Your task to perform on an android device: change the clock display to analog Image 0: 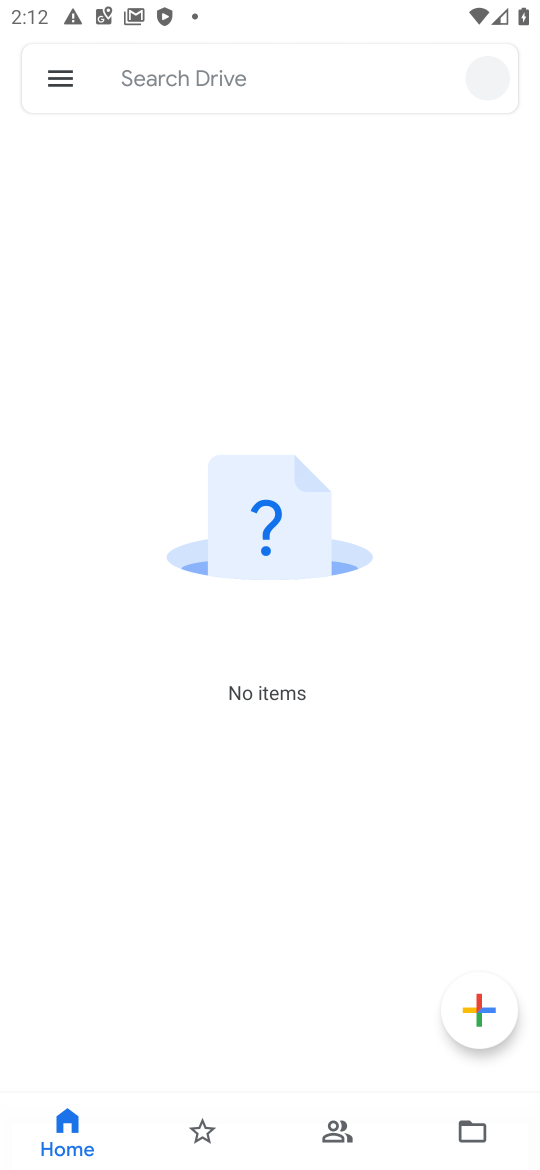
Step 0: press back button
Your task to perform on an android device: change the clock display to analog Image 1: 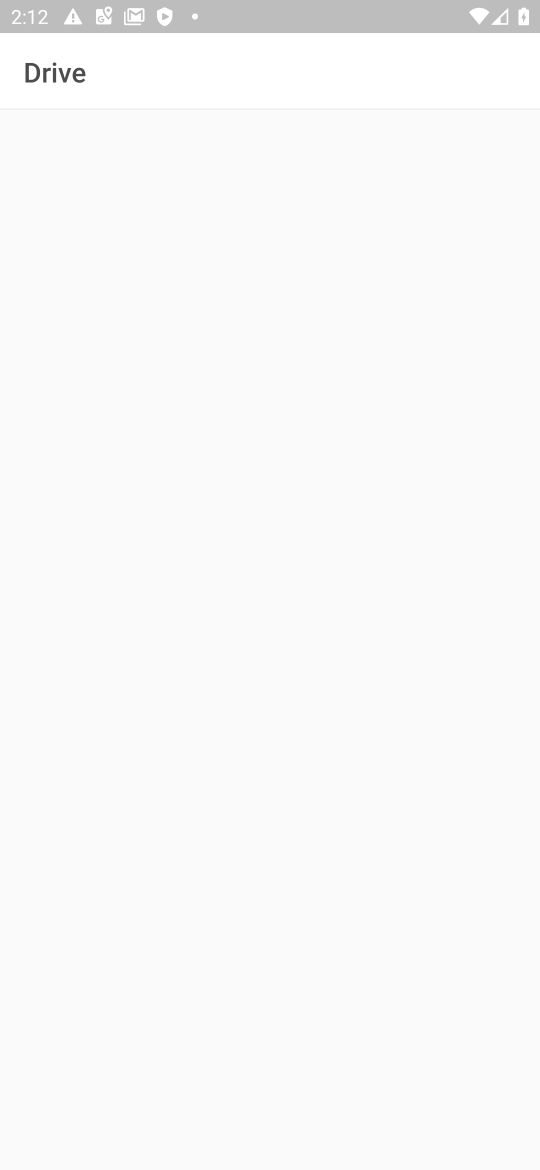
Step 1: press home button
Your task to perform on an android device: change the clock display to analog Image 2: 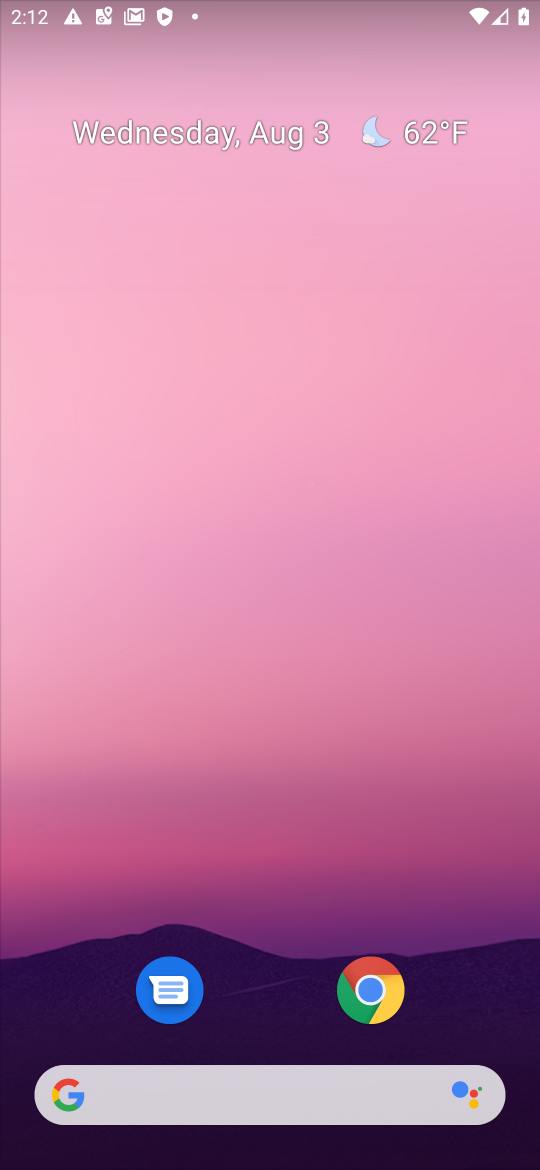
Step 2: drag from (292, 945) to (292, 350)
Your task to perform on an android device: change the clock display to analog Image 3: 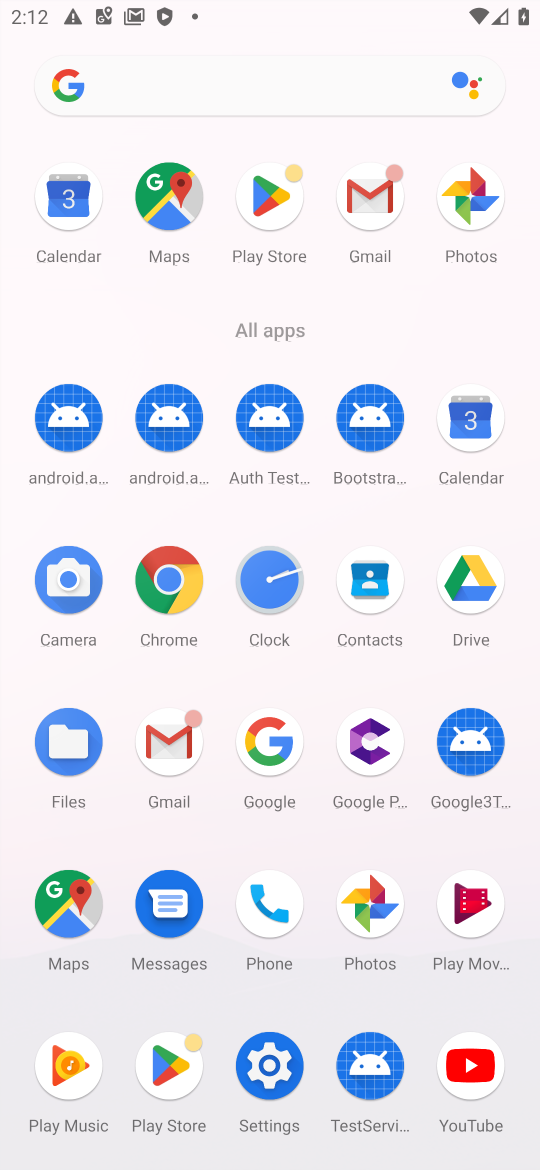
Step 3: click (280, 586)
Your task to perform on an android device: change the clock display to analog Image 4: 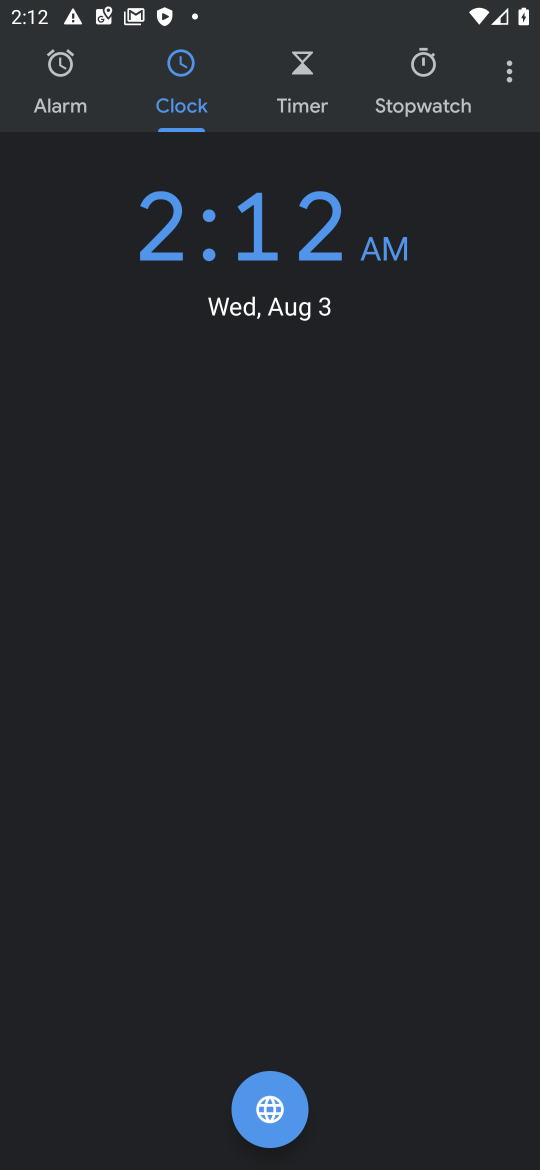
Step 4: click (499, 70)
Your task to perform on an android device: change the clock display to analog Image 5: 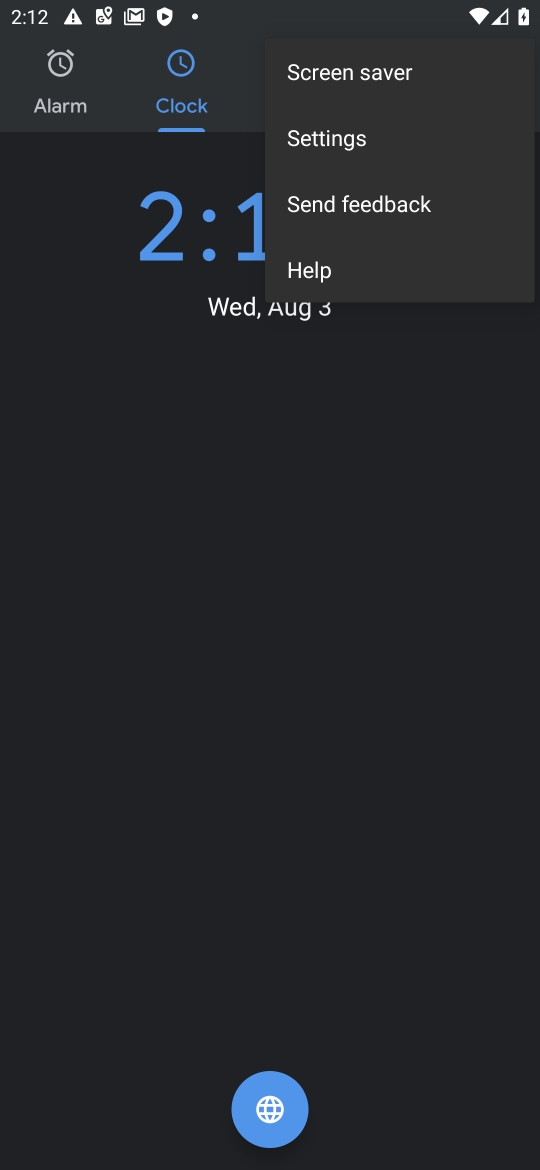
Step 5: click (335, 141)
Your task to perform on an android device: change the clock display to analog Image 6: 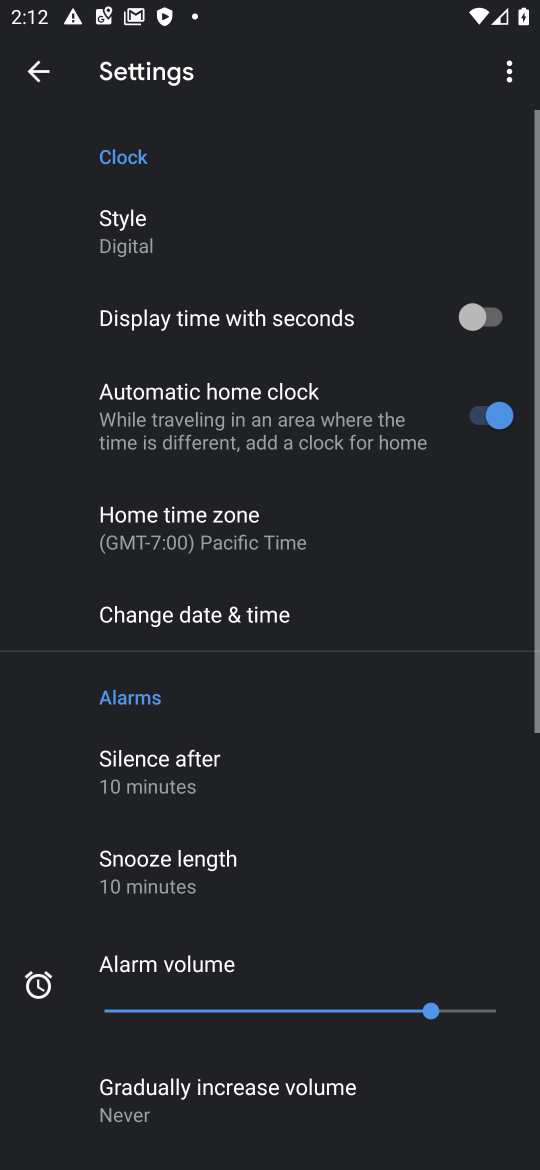
Step 6: click (121, 250)
Your task to perform on an android device: change the clock display to analog Image 7: 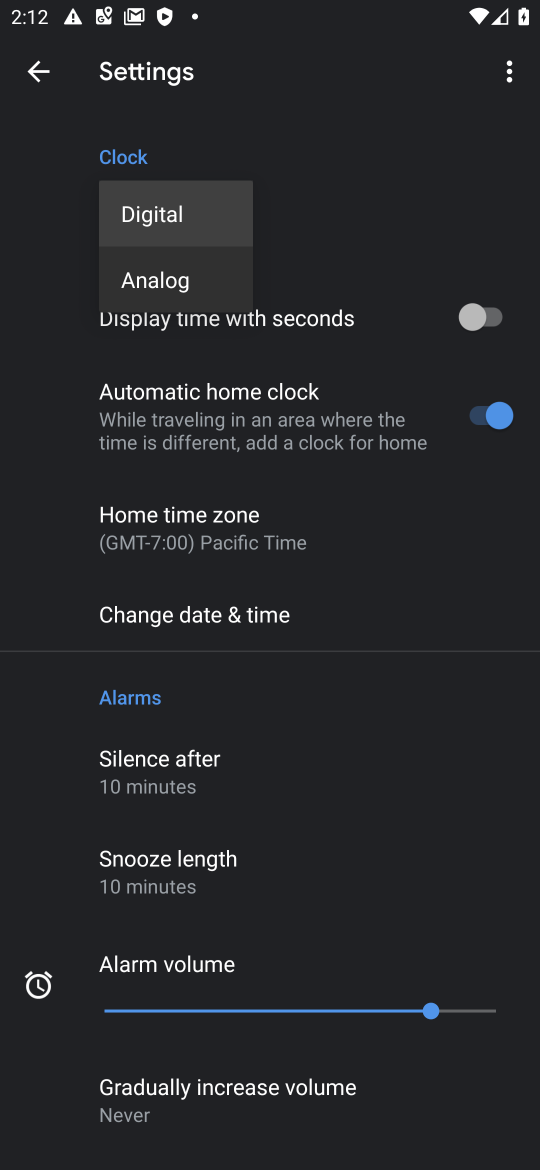
Step 7: click (168, 281)
Your task to perform on an android device: change the clock display to analog Image 8: 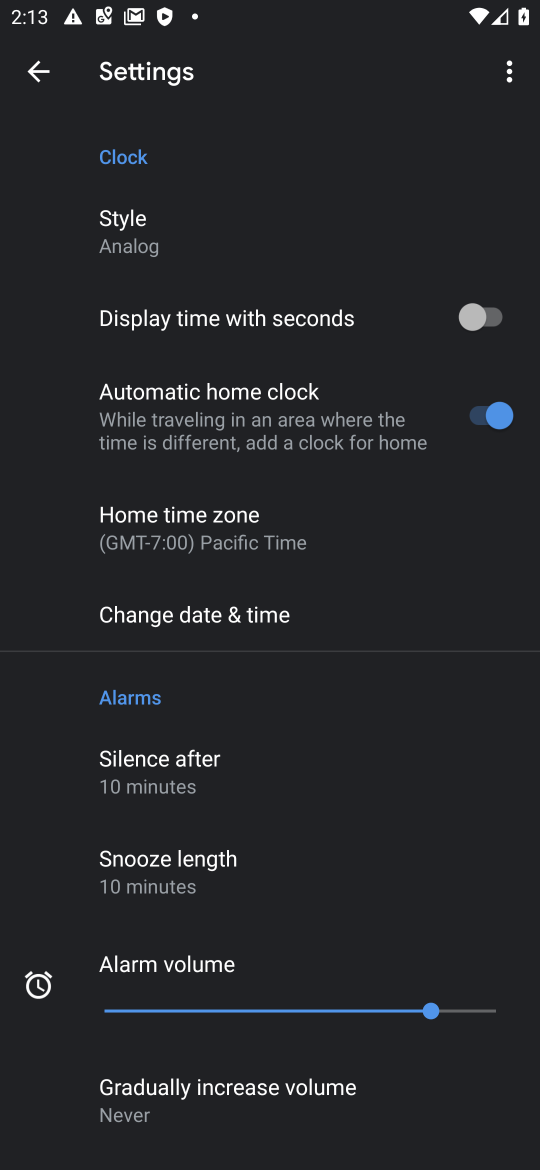
Step 8: task complete